Your task to perform on an android device: open the mobile data screen to see how much data has been used Image 0: 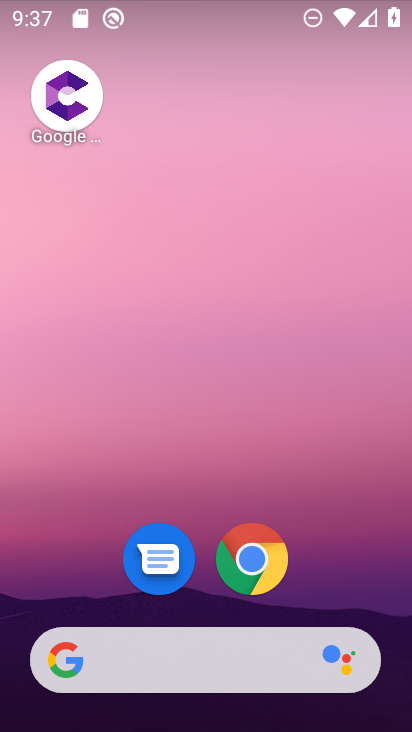
Step 0: drag from (218, 725) to (201, 90)
Your task to perform on an android device: open the mobile data screen to see how much data has been used Image 1: 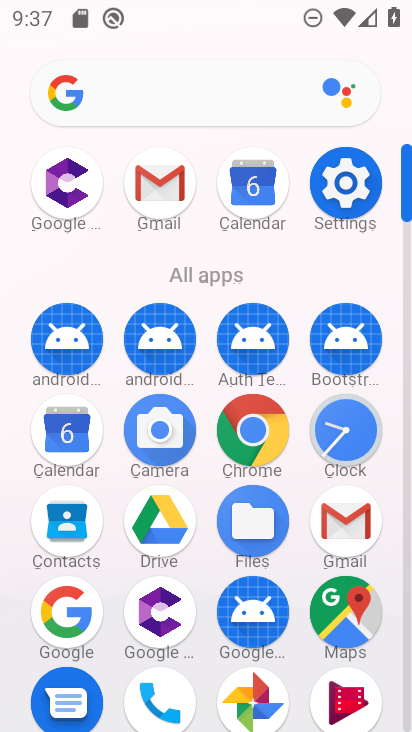
Step 1: click (348, 180)
Your task to perform on an android device: open the mobile data screen to see how much data has been used Image 2: 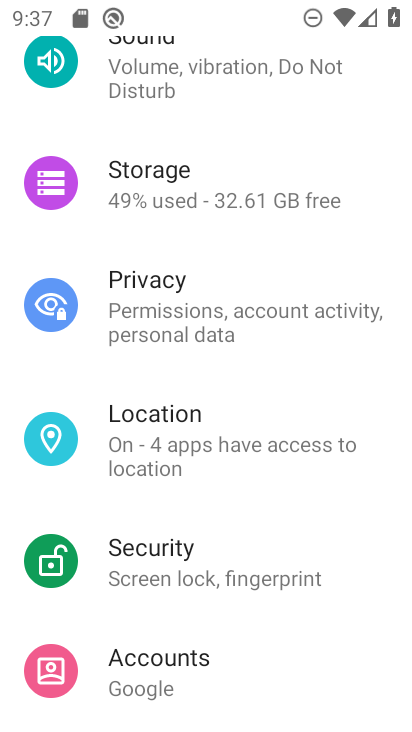
Step 2: drag from (279, 123) to (327, 424)
Your task to perform on an android device: open the mobile data screen to see how much data has been used Image 3: 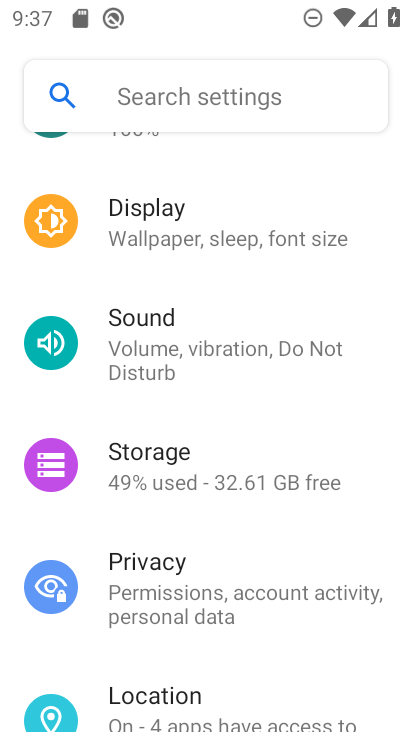
Step 3: drag from (240, 189) to (258, 421)
Your task to perform on an android device: open the mobile data screen to see how much data has been used Image 4: 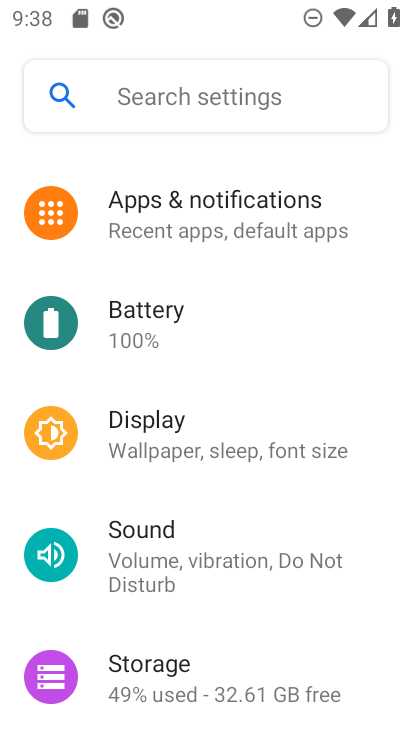
Step 4: drag from (257, 166) to (300, 635)
Your task to perform on an android device: open the mobile data screen to see how much data has been used Image 5: 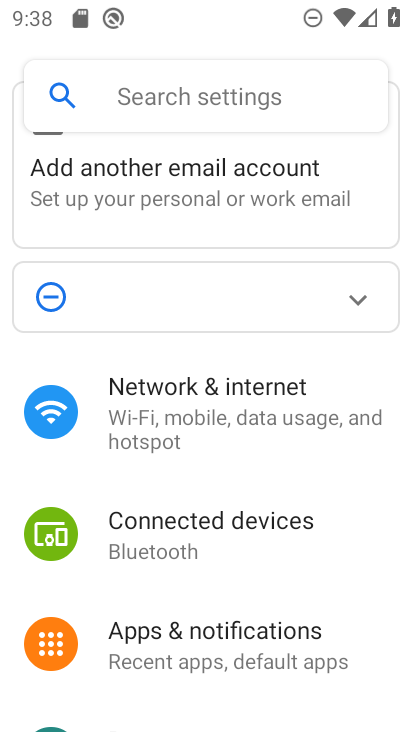
Step 5: click (162, 415)
Your task to perform on an android device: open the mobile data screen to see how much data has been used Image 6: 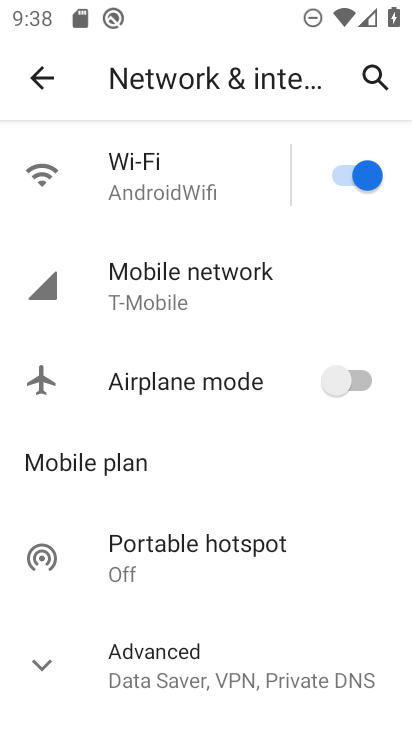
Step 6: click (142, 300)
Your task to perform on an android device: open the mobile data screen to see how much data has been used Image 7: 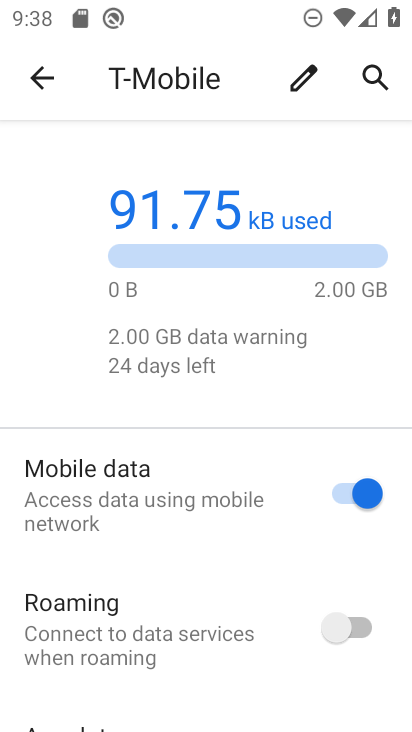
Step 7: drag from (165, 602) to (165, 303)
Your task to perform on an android device: open the mobile data screen to see how much data has been used Image 8: 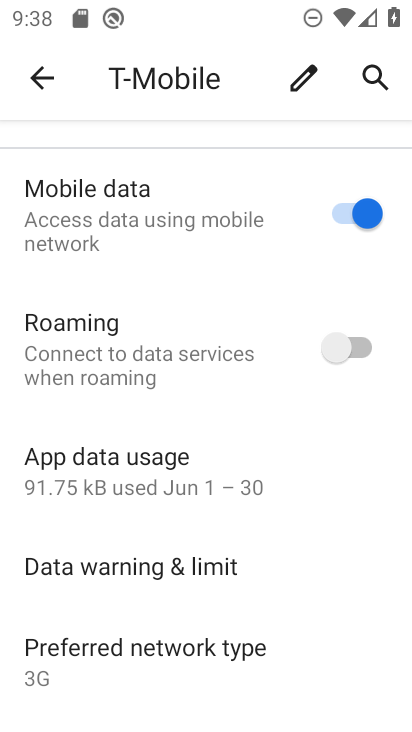
Step 8: click (90, 479)
Your task to perform on an android device: open the mobile data screen to see how much data has been used Image 9: 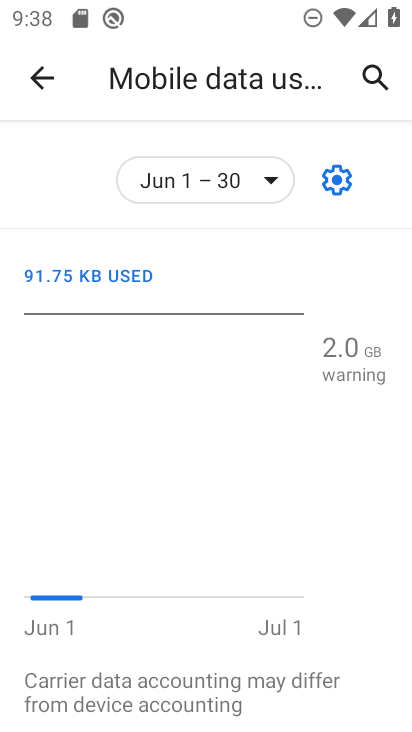
Step 9: task complete